Your task to perform on an android device: open app "Truecaller" (install if not already installed), go to login, and select forgot password Image 0: 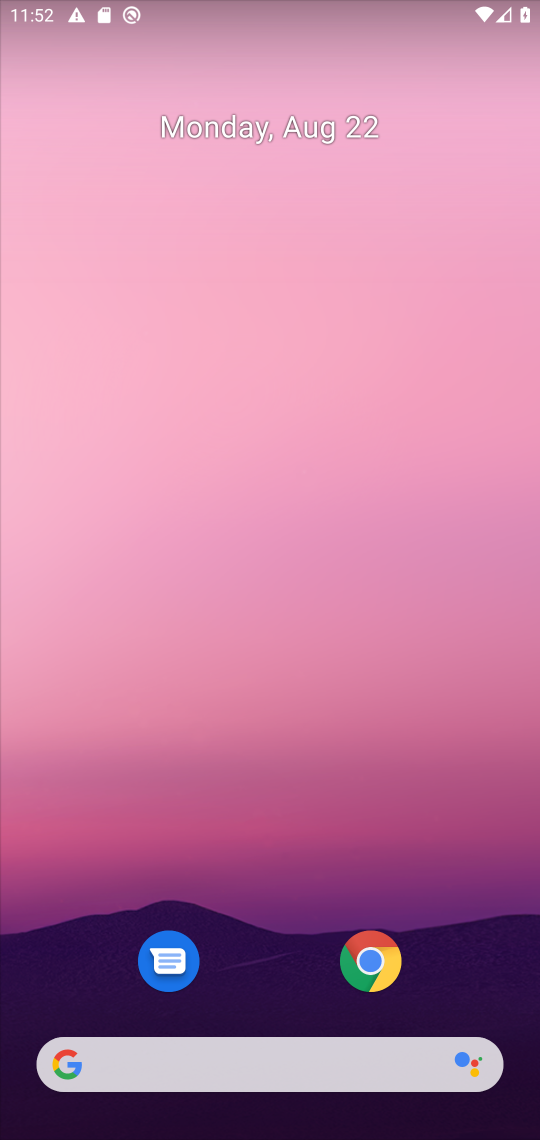
Step 0: drag from (310, 1007) to (237, 211)
Your task to perform on an android device: open app "Truecaller" (install if not already installed), go to login, and select forgot password Image 1: 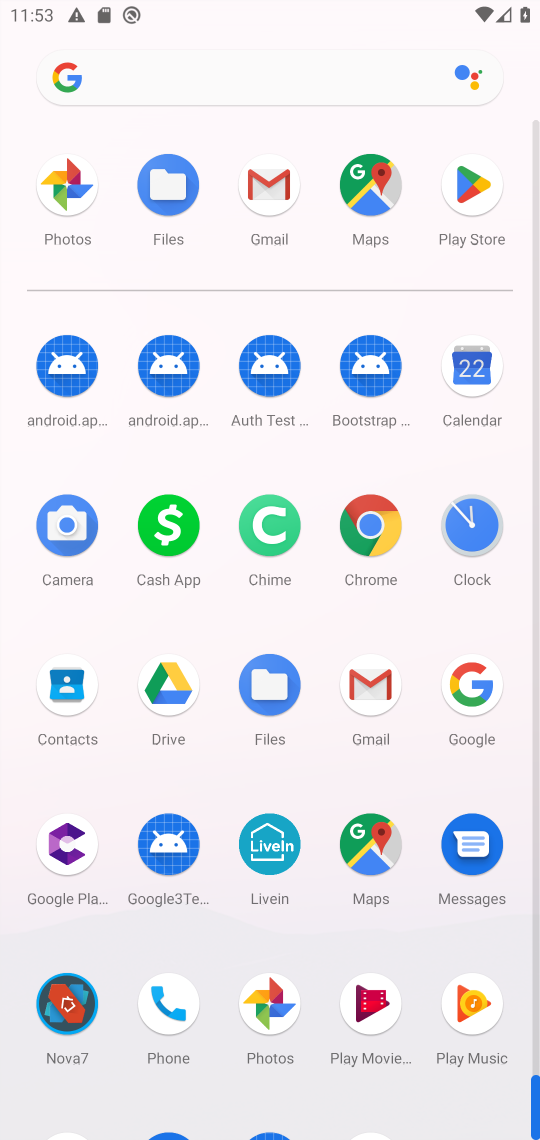
Step 1: task complete